Your task to perform on an android device: What's the weather going to be tomorrow? Image 0: 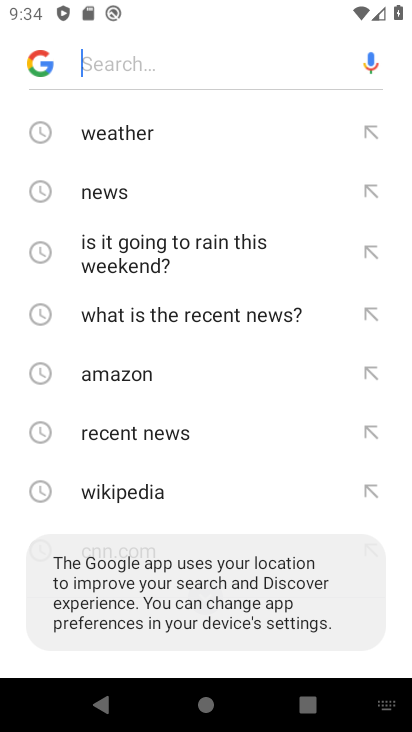
Step 0: press back button
Your task to perform on an android device: What's the weather going to be tomorrow? Image 1: 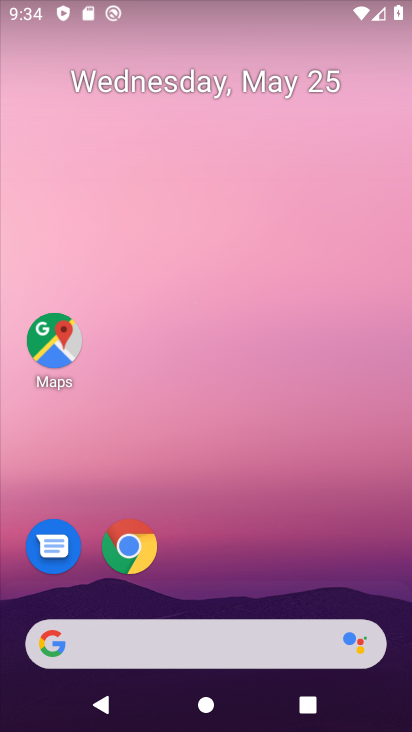
Step 1: drag from (225, 562) to (143, 32)
Your task to perform on an android device: What's the weather going to be tomorrow? Image 2: 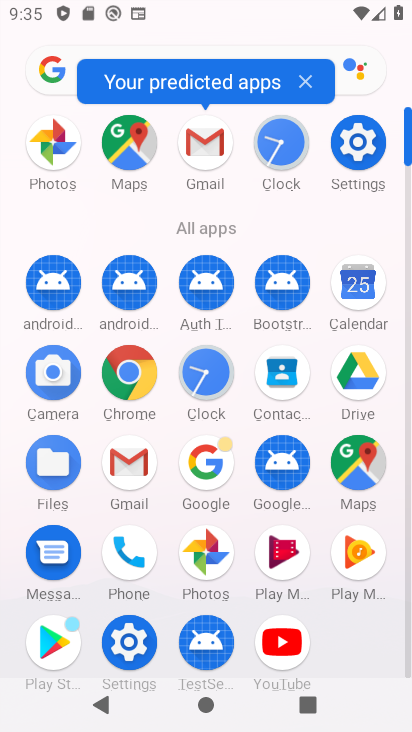
Step 2: drag from (12, 537) to (17, 276)
Your task to perform on an android device: What's the weather going to be tomorrow? Image 3: 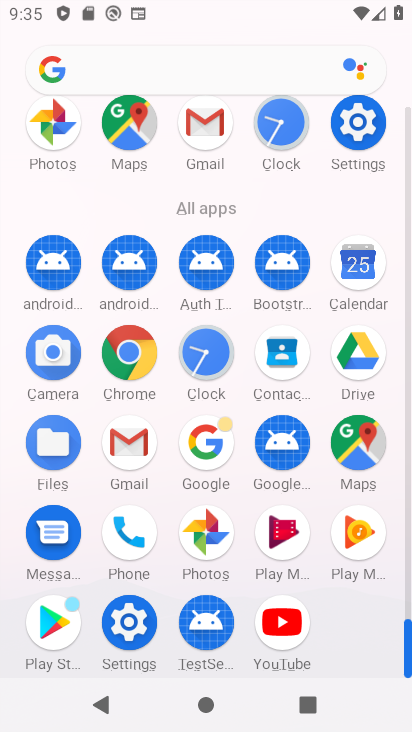
Step 3: drag from (10, 592) to (7, 345)
Your task to perform on an android device: What's the weather going to be tomorrow? Image 4: 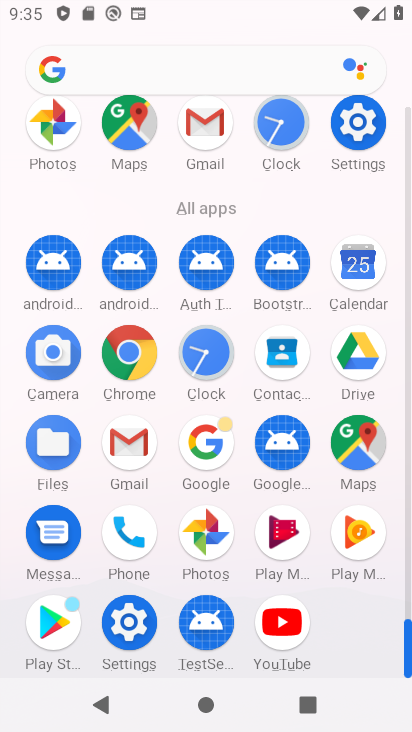
Step 4: drag from (0, 396) to (11, 316)
Your task to perform on an android device: What's the weather going to be tomorrow? Image 5: 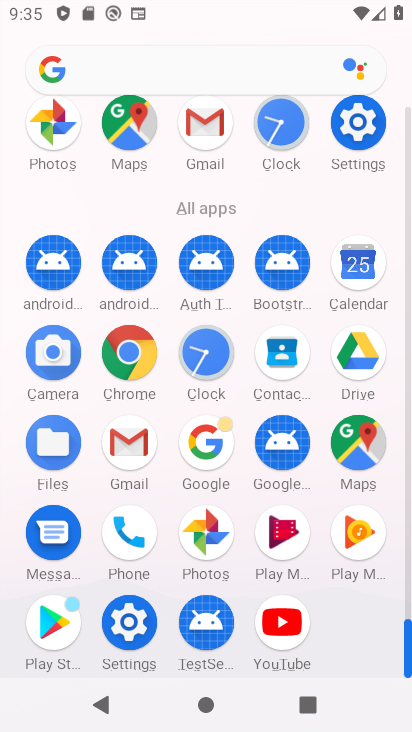
Step 5: click (126, 345)
Your task to perform on an android device: What's the weather going to be tomorrow? Image 6: 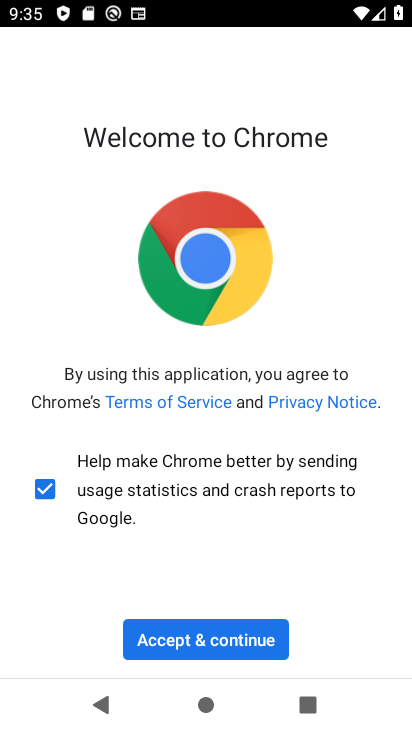
Step 6: click (173, 639)
Your task to perform on an android device: What's the weather going to be tomorrow? Image 7: 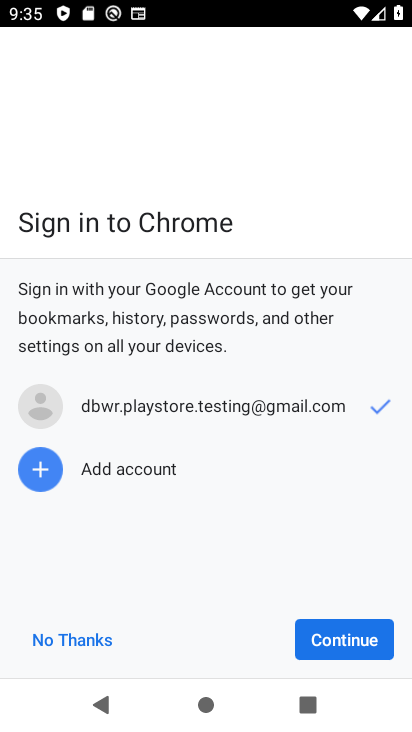
Step 7: click (359, 635)
Your task to perform on an android device: What's the weather going to be tomorrow? Image 8: 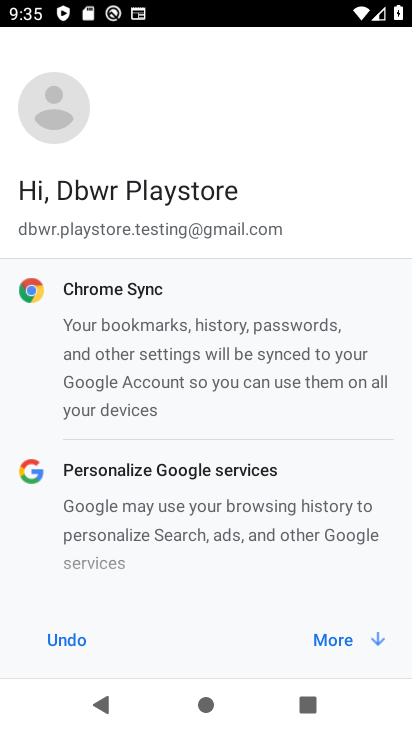
Step 8: click (337, 635)
Your task to perform on an android device: What's the weather going to be tomorrow? Image 9: 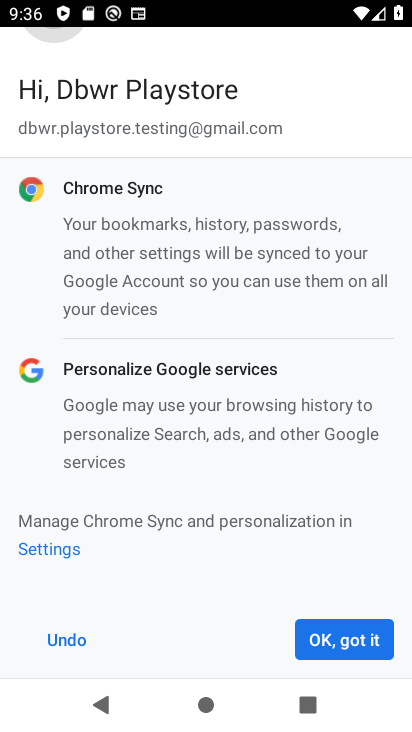
Step 9: click (351, 644)
Your task to perform on an android device: What's the weather going to be tomorrow? Image 10: 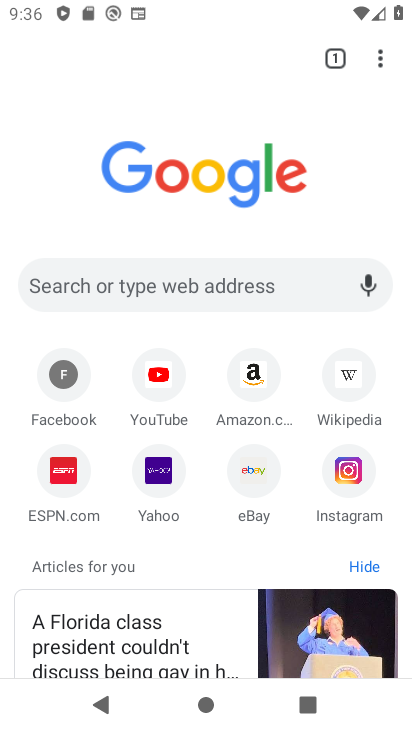
Step 10: click (101, 281)
Your task to perform on an android device: What's the weather going to be tomorrow? Image 11: 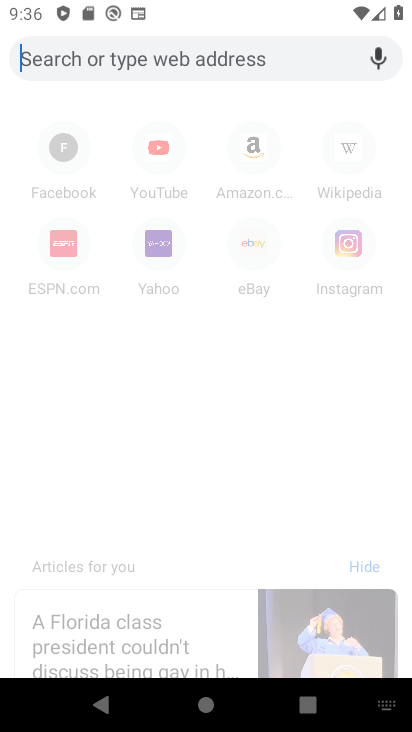
Step 11: type "What's the weather going to be tomorrow?"
Your task to perform on an android device: What's the weather going to be tomorrow? Image 12: 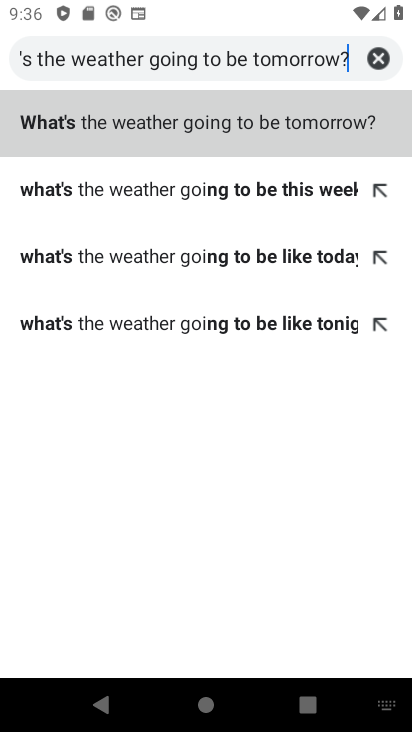
Step 12: type ""
Your task to perform on an android device: What's the weather going to be tomorrow? Image 13: 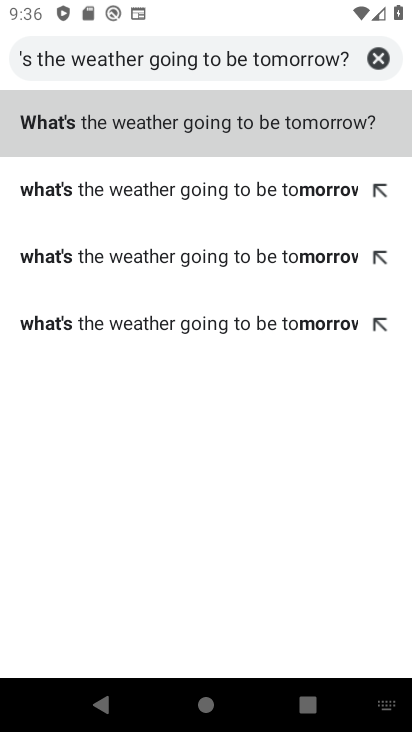
Step 13: click (174, 128)
Your task to perform on an android device: What's the weather going to be tomorrow? Image 14: 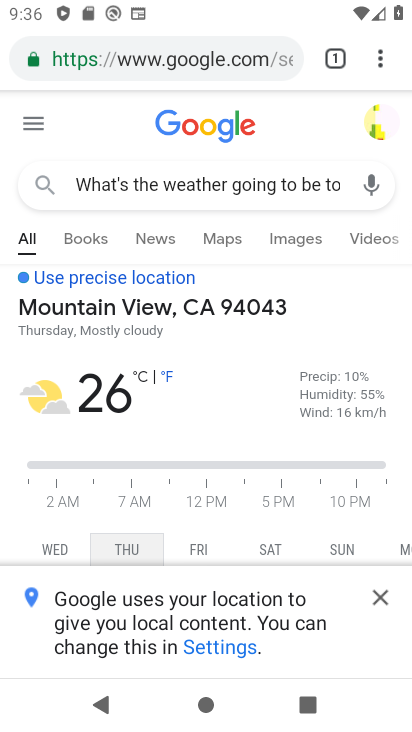
Step 14: task complete